Your task to perform on an android device: Go to Wikipedia Image 0: 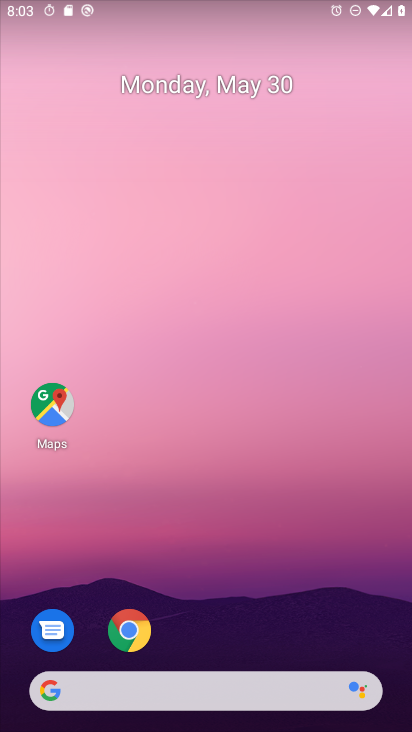
Step 0: drag from (287, 617) to (251, 98)
Your task to perform on an android device: Go to Wikipedia Image 1: 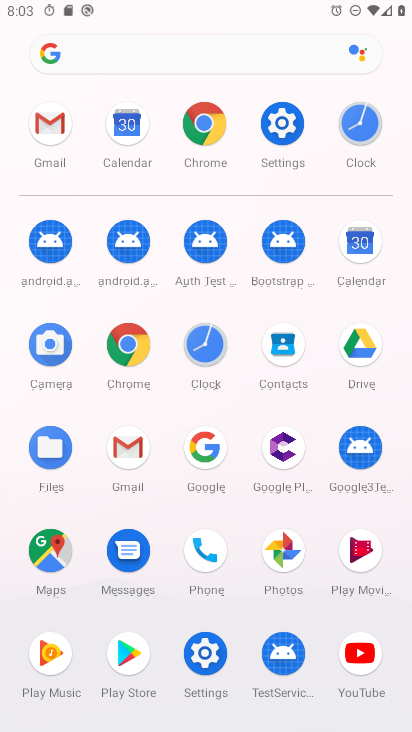
Step 1: click (221, 447)
Your task to perform on an android device: Go to Wikipedia Image 2: 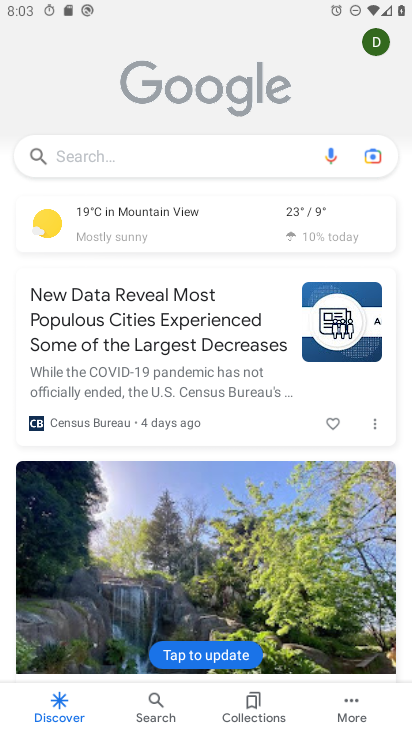
Step 2: click (135, 155)
Your task to perform on an android device: Go to Wikipedia Image 3: 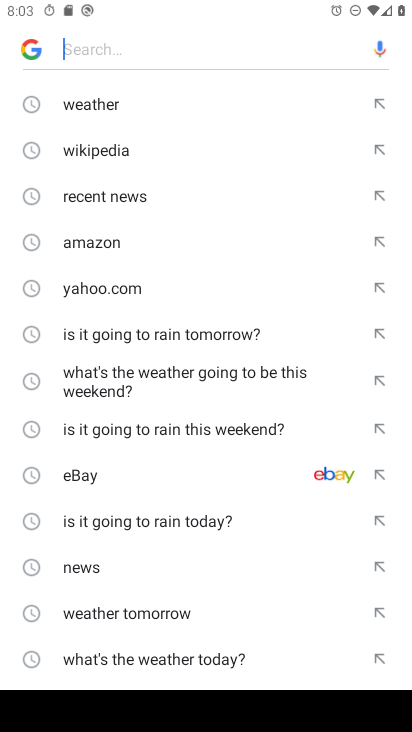
Step 3: click (125, 153)
Your task to perform on an android device: Go to Wikipedia Image 4: 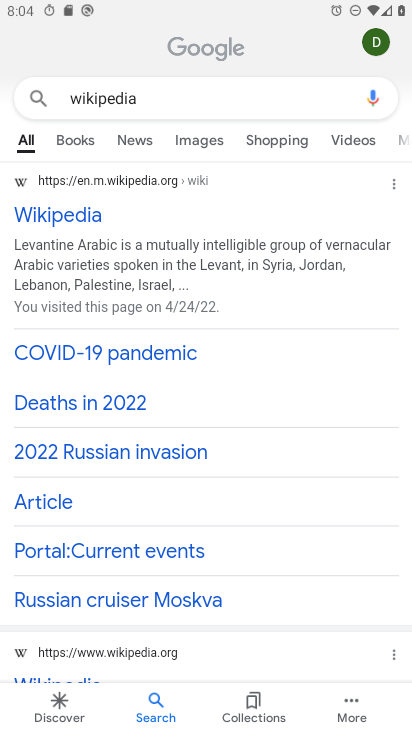
Step 4: task complete